Your task to perform on an android device: Open sound settings Image 0: 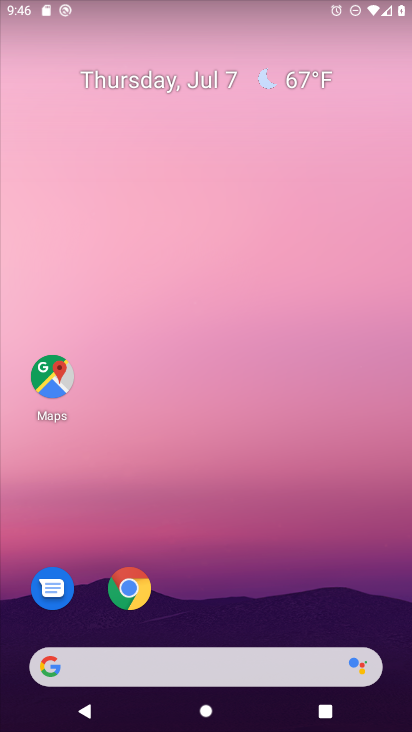
Step 0: drag from (211, 596) to (202, 199)
Your task to perform on an android device: Open sound settings Image 1: 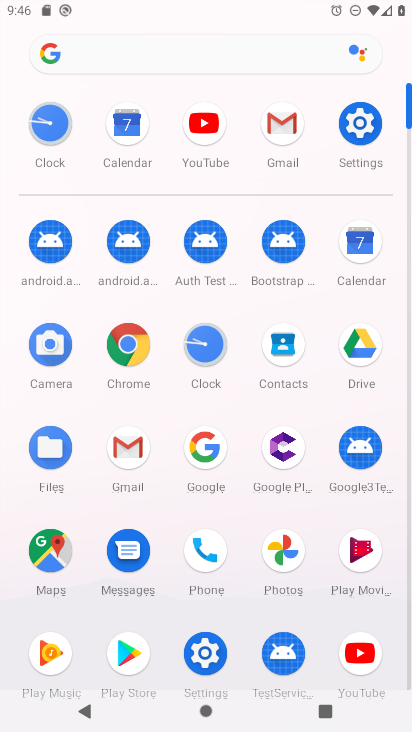
Step 1: click (361, 123)
Your task to perform on an android device: Open sound settings Image 2: 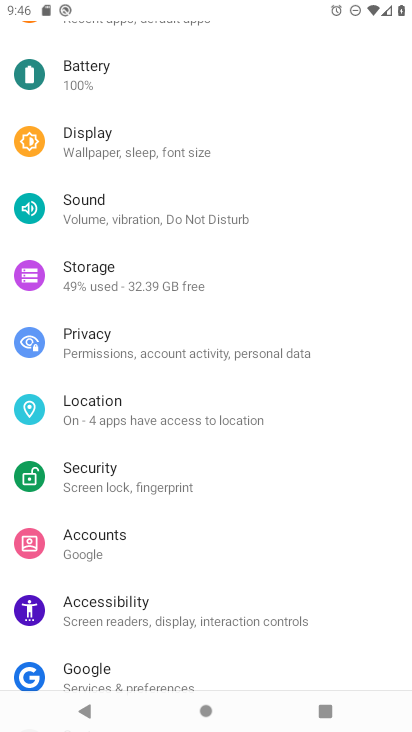
Step 2: click (148, 224)
Your task to perform on an android device: Open sound settings Image 3: 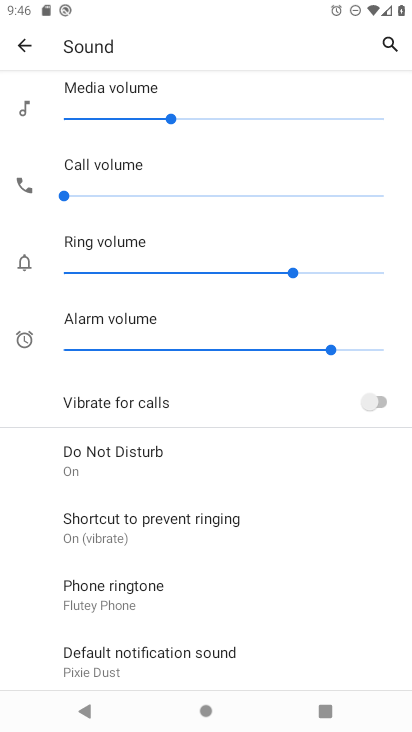
Step 3: task complete